Your task to perform on an android device: open app "Chime – Mobile Banking" Image 0: 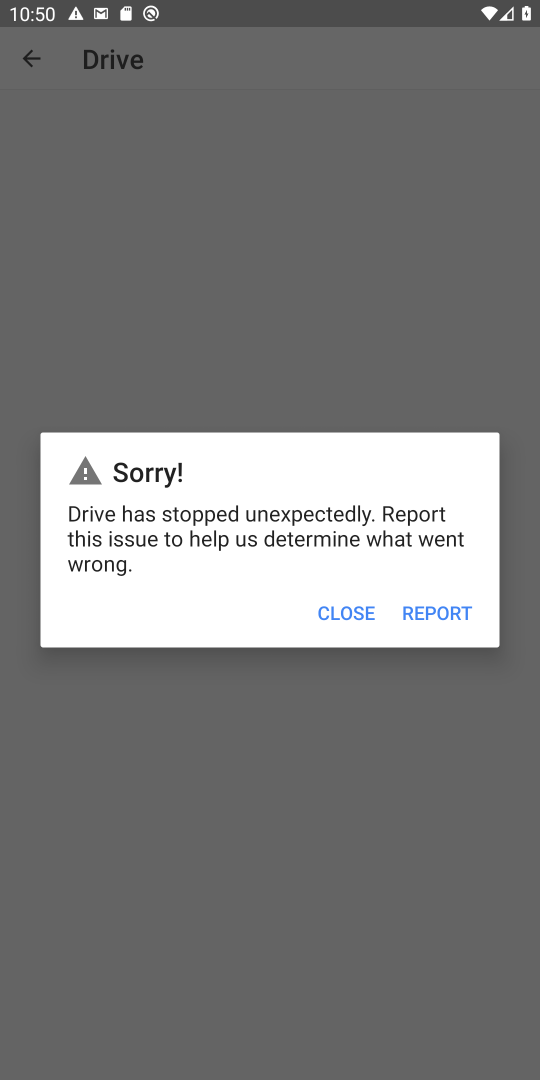
Step 0: press back button
Your task to perform on an android device: open app "Chime – Mobile Banking" Image 1: 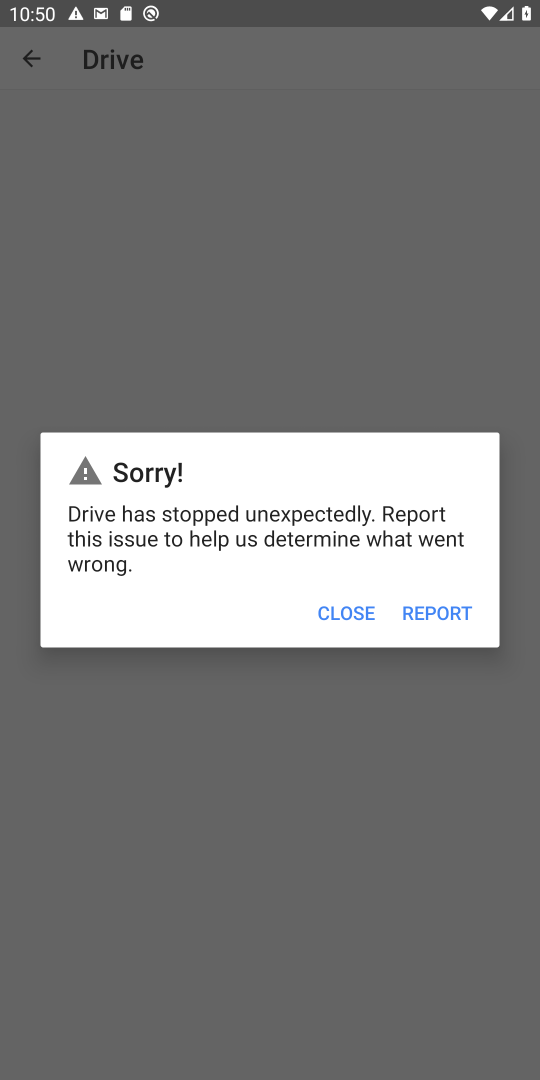
Step 1: press home button
Your task to perform on an android device: open app "Chime – Mobile Banking" Image 2: 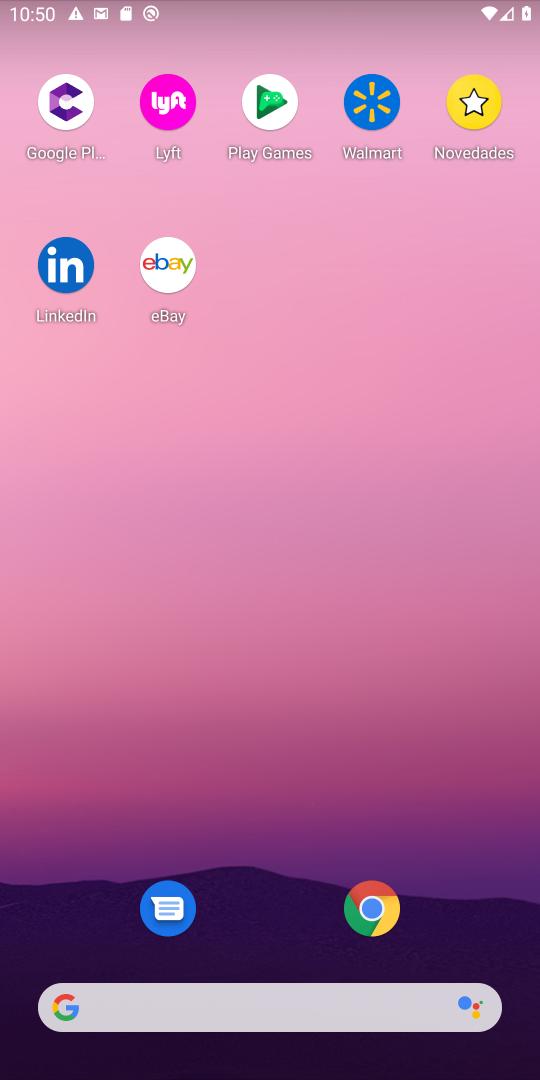
Step 2: drag from (265, 768) to (355, 17)
Your task to perform on an android device: open app "Chime – Mobile Banking" Image 3: 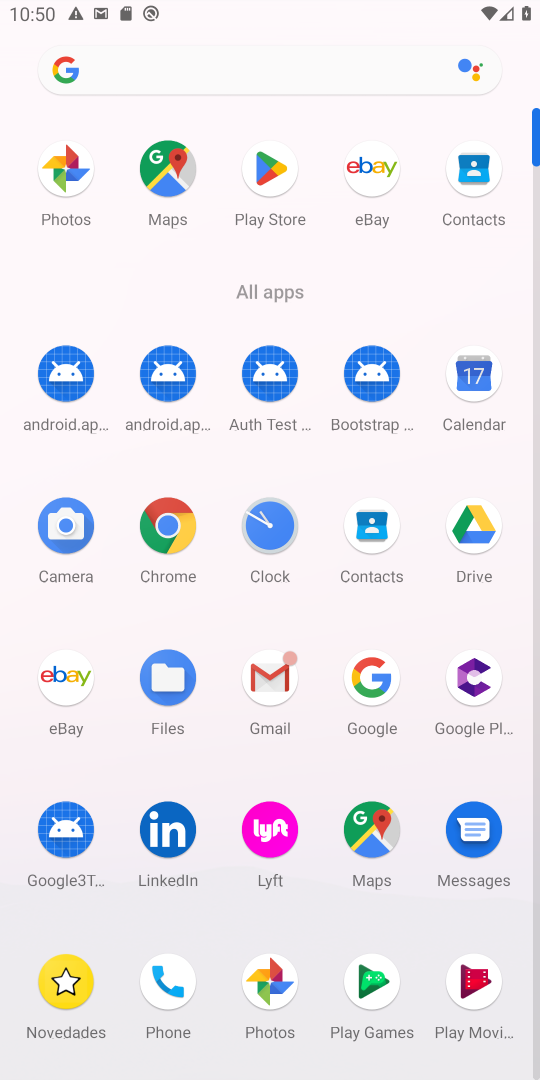
Step 3: click (280, 161)
Your task to perform on an android device: open app "Chime – Mobile Banking" Image 4: 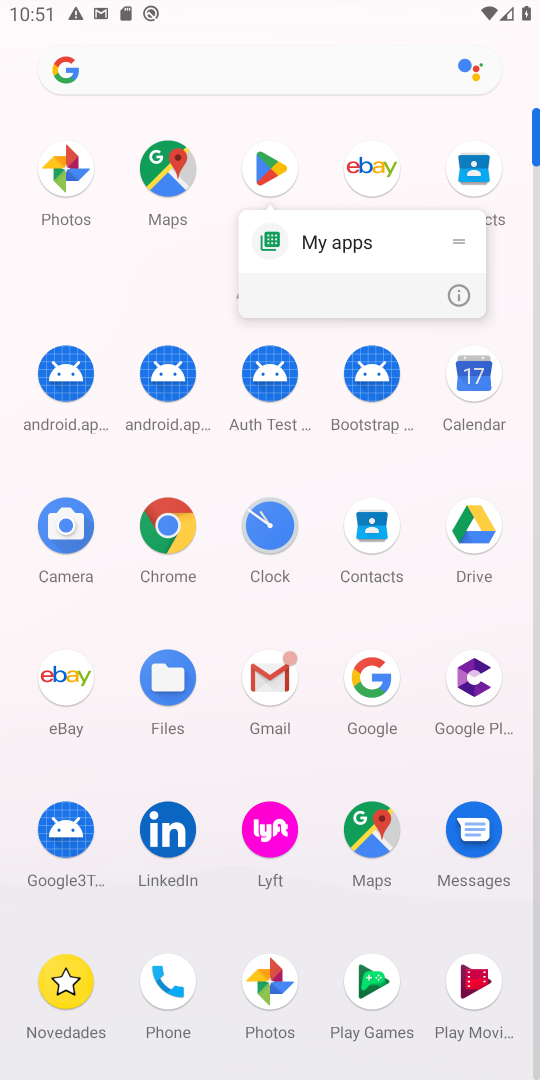
Step 4: click (259, 160)
Your task to perform on an android device: open app "Chime – Mobile Banking" Image 5: 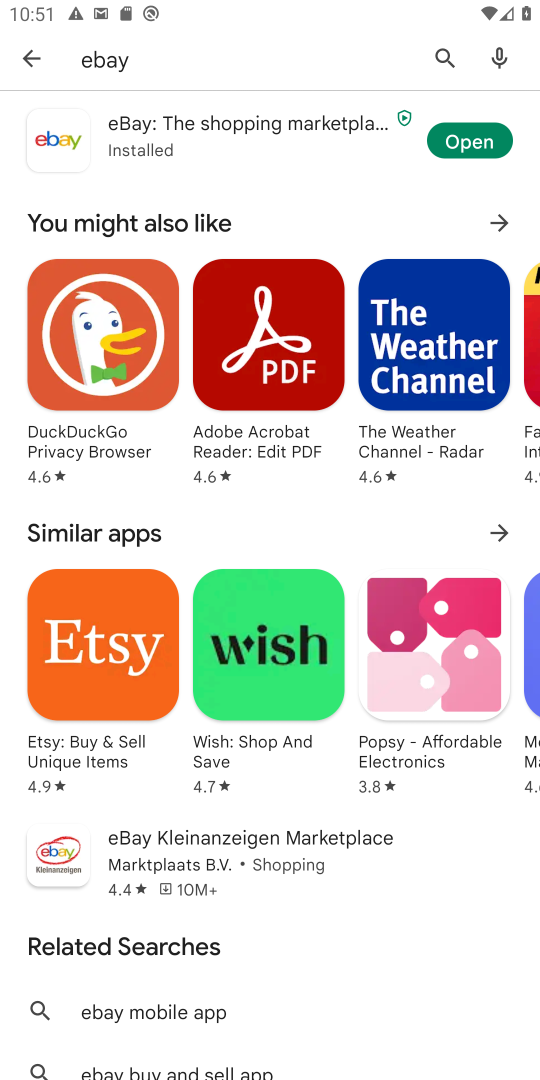
Step 5: click (443, 44)
Your task to perform on an android device: open app "Chime – Mobile Banking" Image 6: 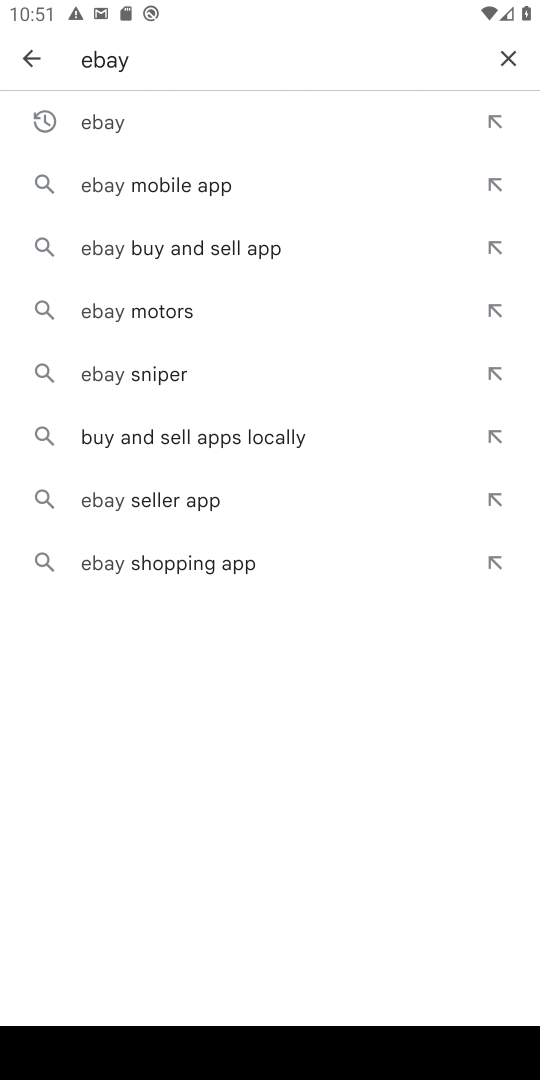
Step 6: click (520, 54)
Your task to perform on an android device: open app "Chime – Mobile Banking" Image 7: 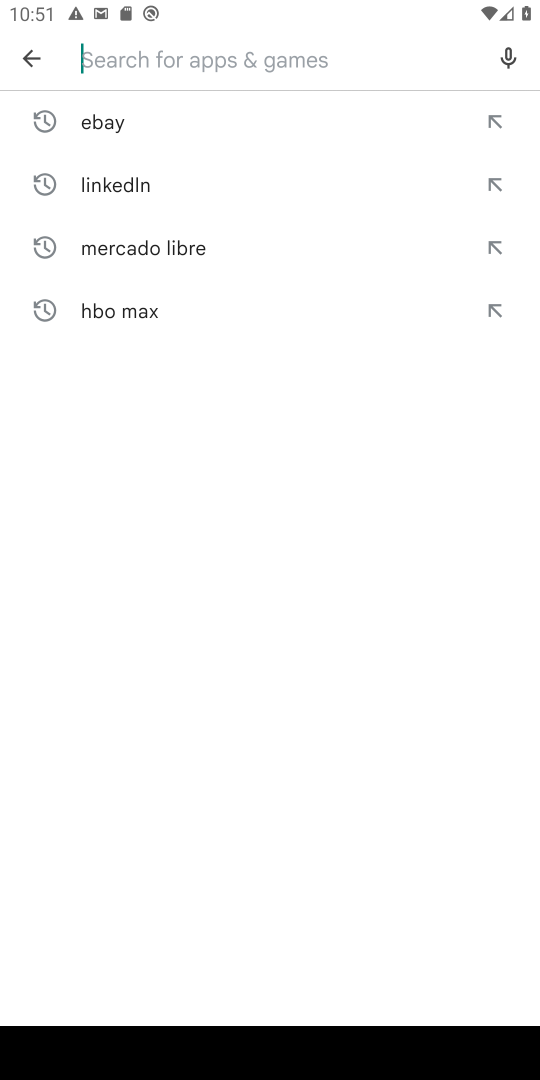
Step 7: type "chime"
Your task to perform on an android device: open app "Chime – Mobile Banking" Image 8: 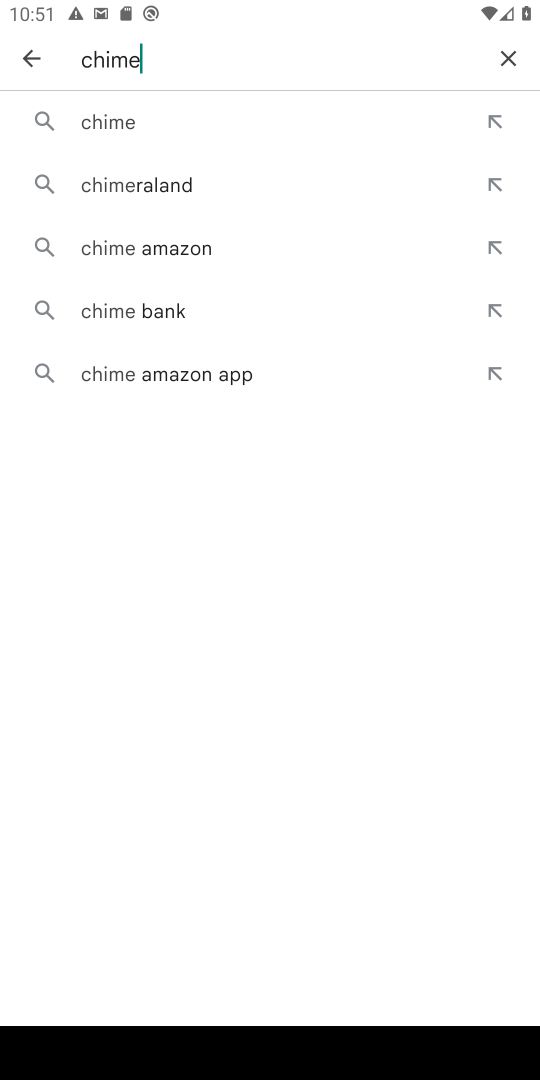
Step 8: click (162, 114)
Your task to perform on an android device: open app "Chime – Mobile Banking" Image 9: 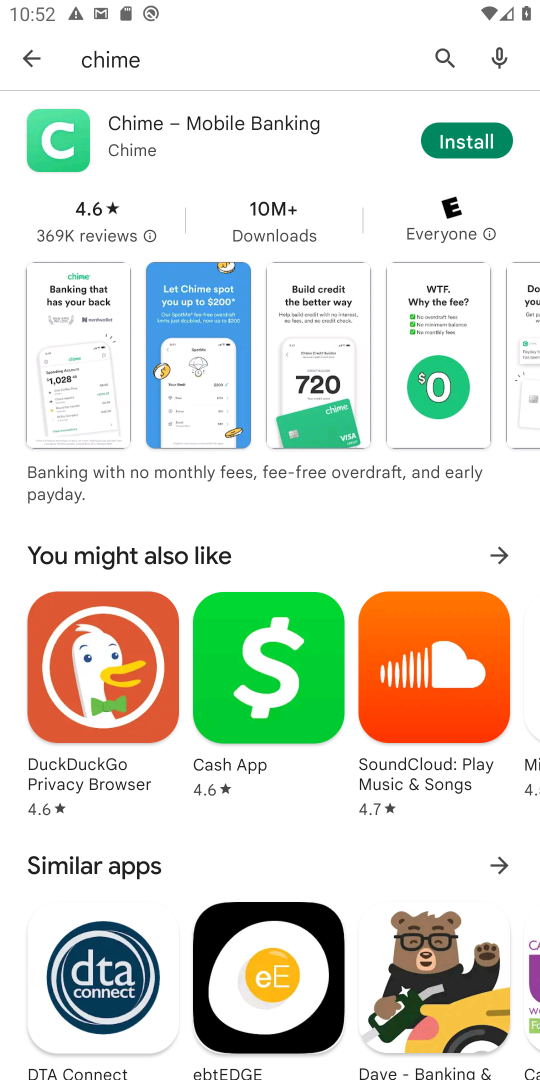
Step 9: task complete